Your task to perform on an android device: Go to sound settings Image 0: 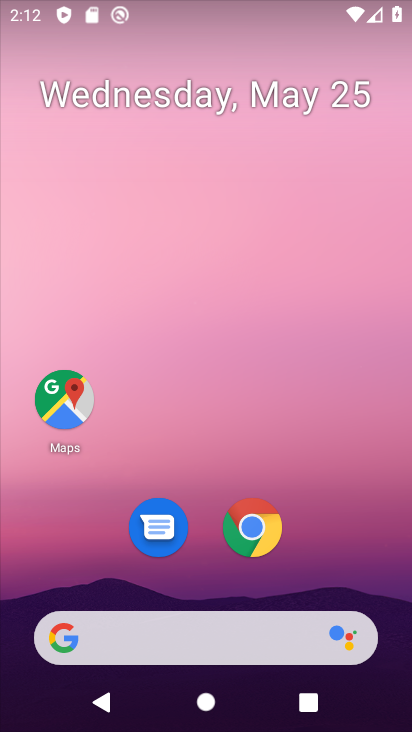
Step 0: drag from (167, 570) to (276, 113)
Your task to perform on an android device: Go to sound settings Image 1: 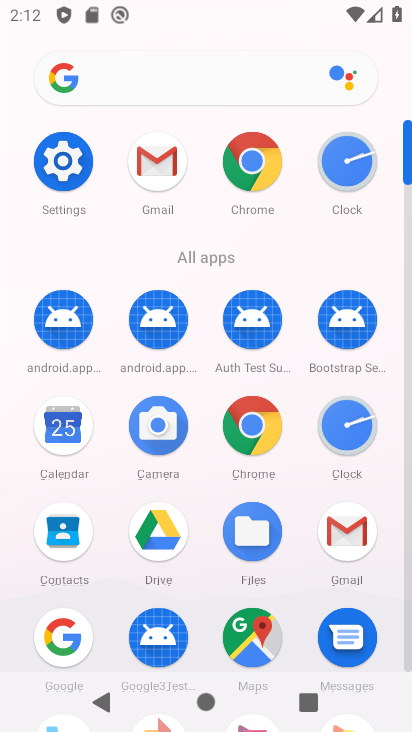
Step 1: click (61, 164)
Your task to perform on an android device: Go to sound settings Image 2: 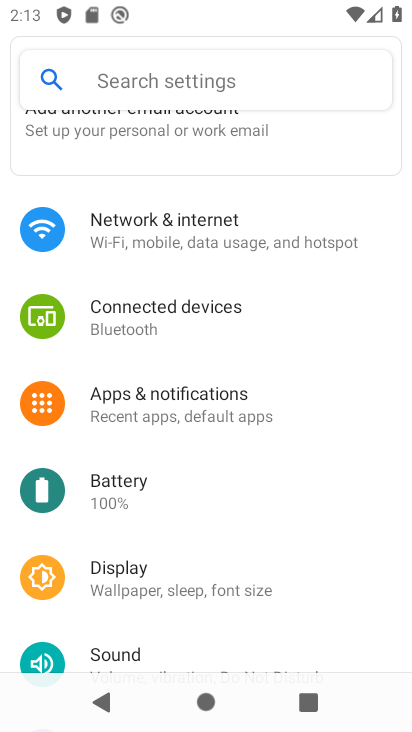
Step 2: click (148, 647)
Your task to perform on an android device: Go to sound settings Image 3: 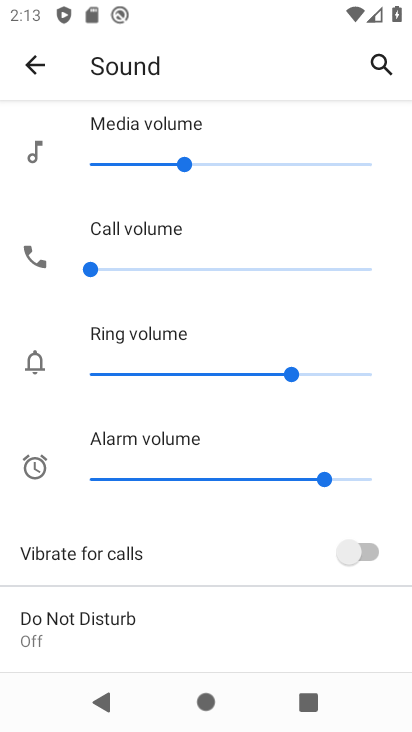
Step 3: task complete